Your task to perform on an android device: change alarm snooze length Image 0: 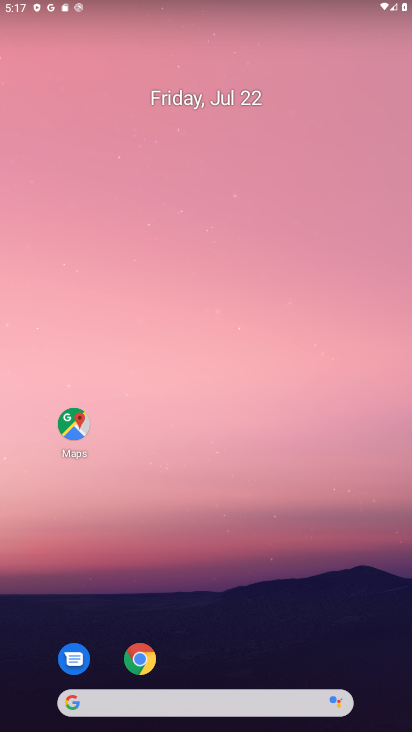
Step 0: press home button
Your task to perform on an android device: change alarm snooze length Image 1: 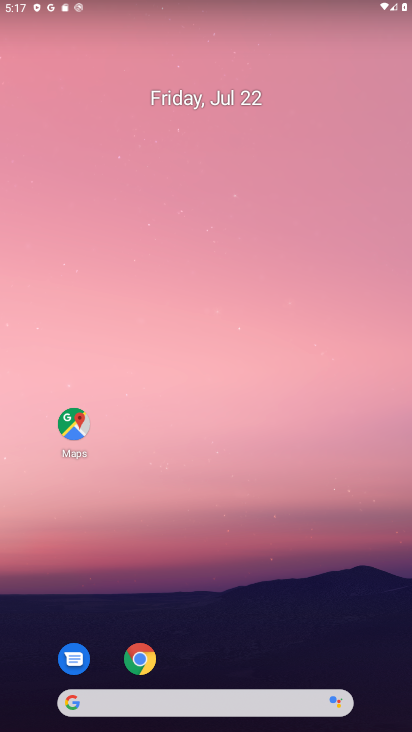
Step 1: drag from (205, 657) to (252, 155)
Your task to perform on an android device: change alarm snooze length Image 2: 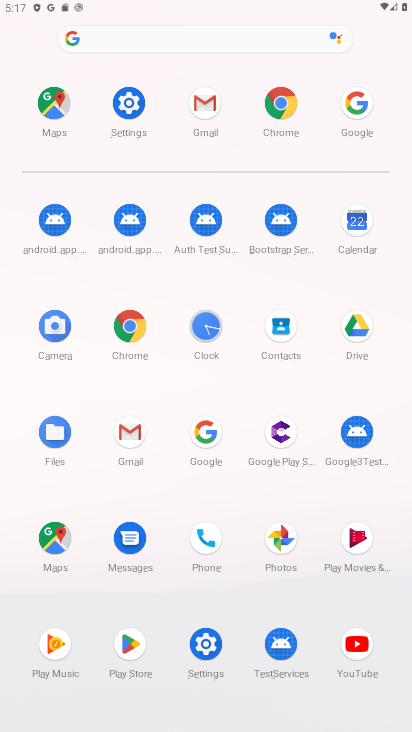
Step 2: click (200, 329)
Your task to perform on an android device: change alarm snooze length Image 3: 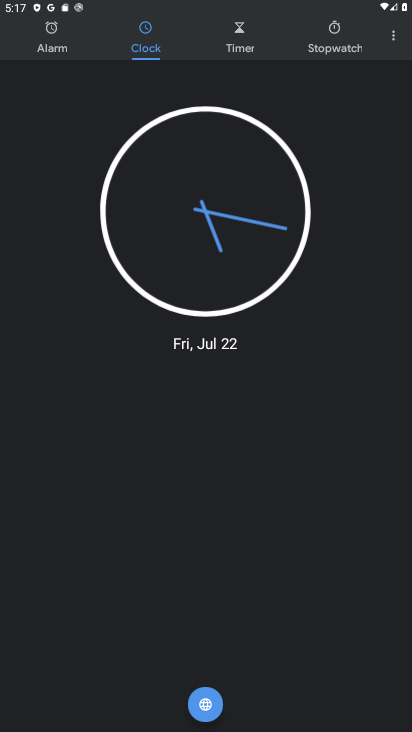
Step 3: click (391, 37)
Your task to perform on an android device: change alarm snooze length Image 4: 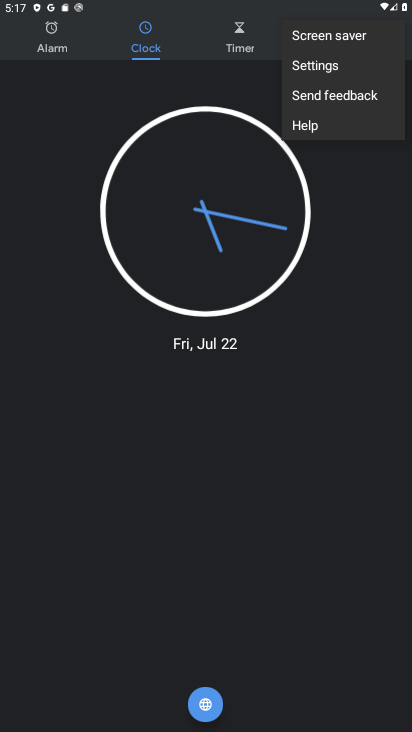
Step 4: click (338, 67)
Your task to perform on an android device: change alarm snooze length Image 5: 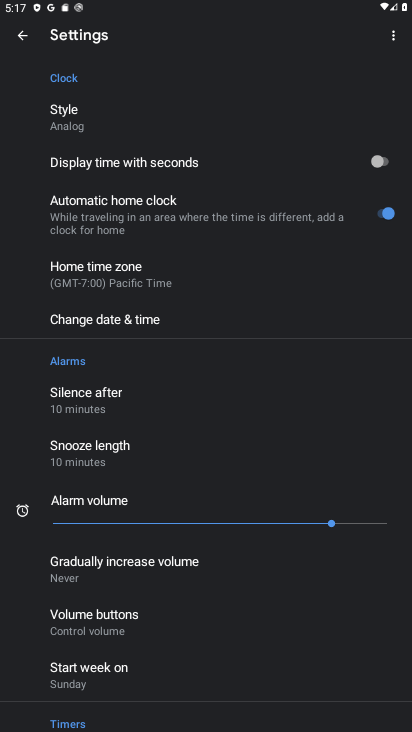
Step 5: click (133, 457)
Your task to perform on an android device: change alarm snooze length Image 6: 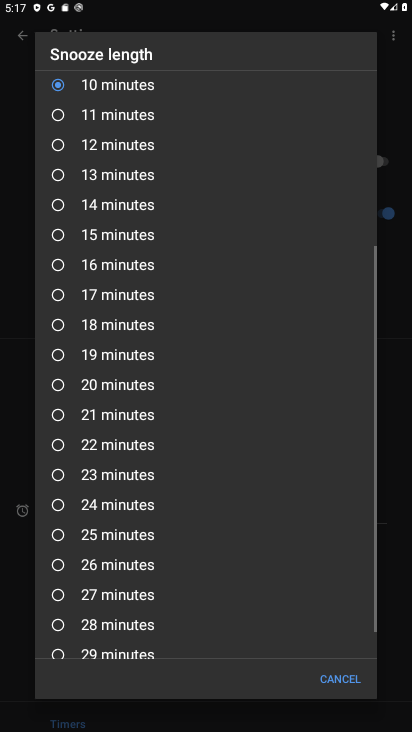
Step 6: drag from (73, 154) to (93, 493)
Your task to perform on an android device: change alarm snooze length Image 7: 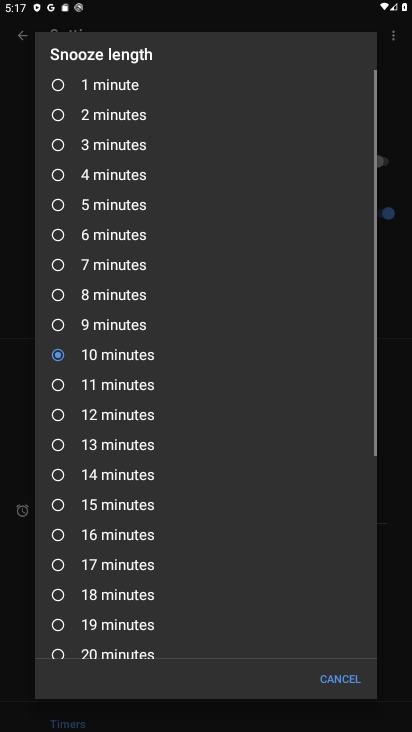
Step 7: click (55, 213)
Your task to perform on an android device: change alarm snooze length Image 8: 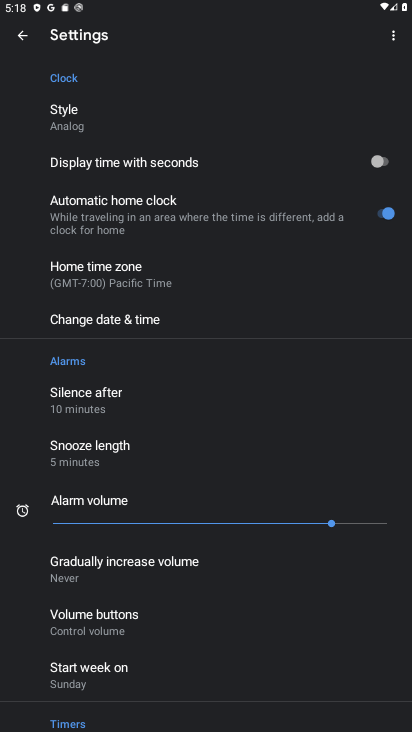
Step 8: task complete